Your task to perform on an android device: uninstall "LiveIn - Share Your Moment" Image 0: 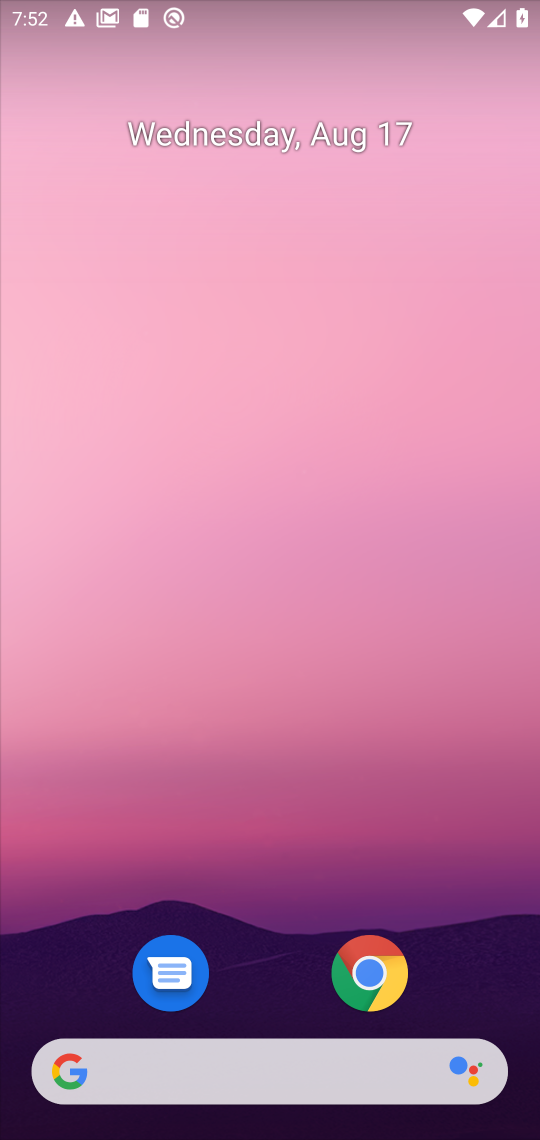
Step 0: drag from (295, 782) to (364, 198)
Your task to perform on an android device: uninstall "LiveIn - Share Your Moment" Image 1: 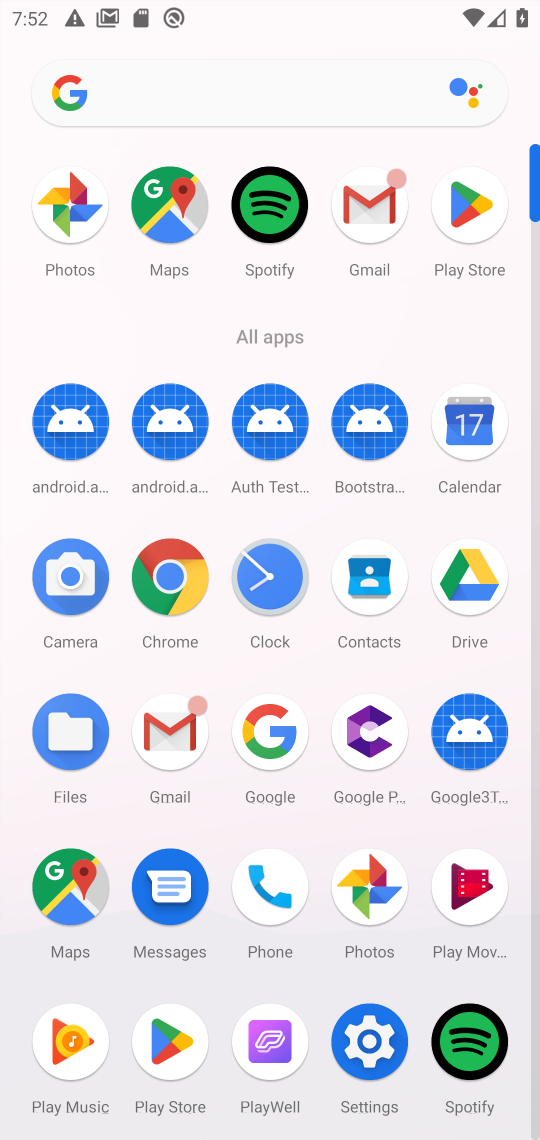
Step 1: click (183, 1052)
Your task to perform on an android device: uninstall "LiveIn - Share Your Moment" Image 2: 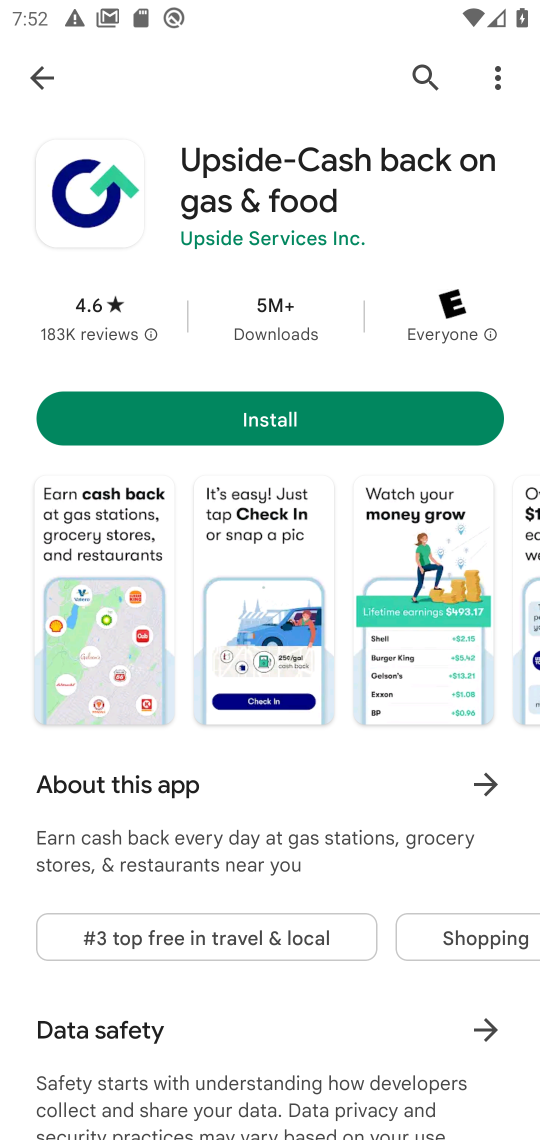
Step 2: click (50, 75)
Your task to perform on an android device: uninstall "LiveIn - Share Your Moment" Image 3: 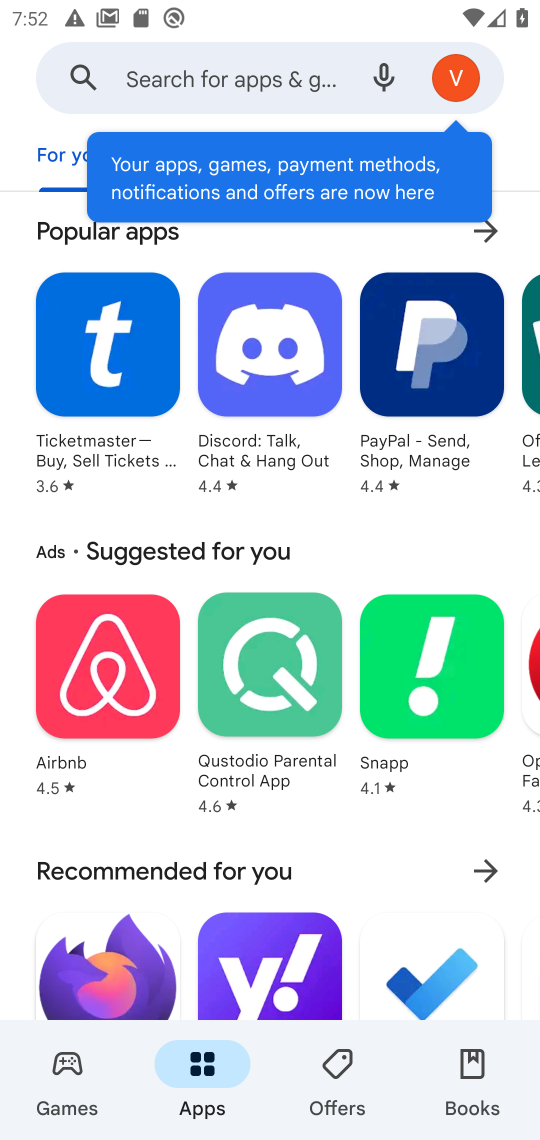
Step 3: click (145, 79)
Your task to perform on an android device: uninstall "LiveIn - Share Your Moment" Image 4: 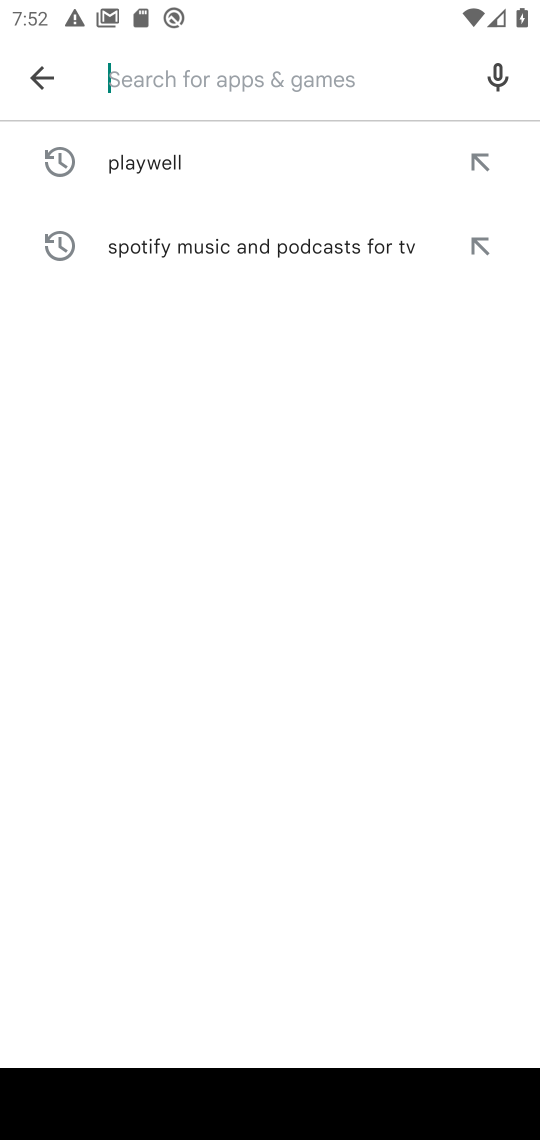
Step 4: type "LiveIn - Share Your Moment"
Your task to perform on an android device: uninstall "LiveIn - Share Your Moment" Image 5: 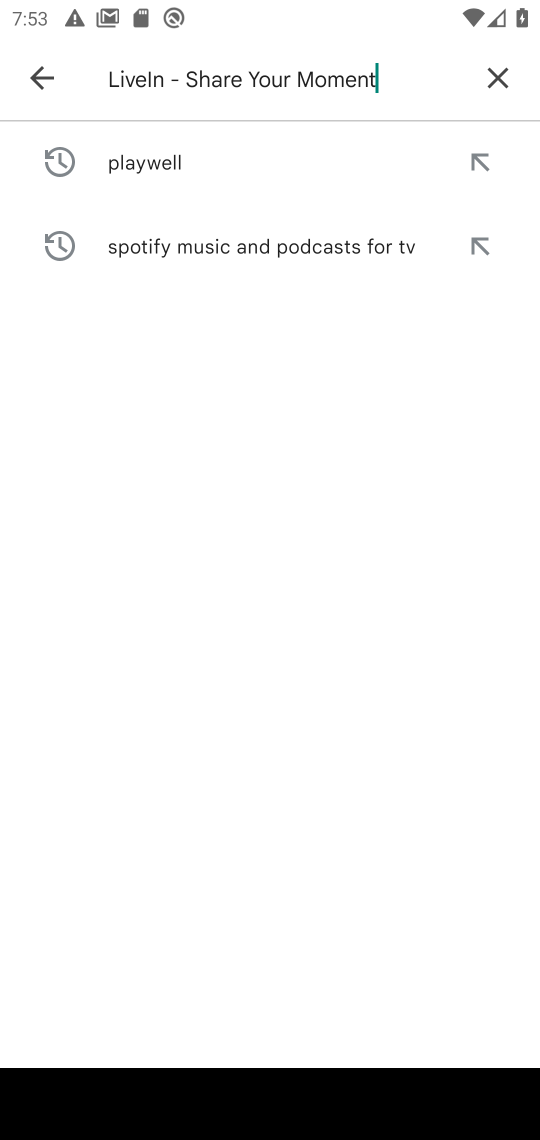
Step 5: type ""
Your task to perform on an android device: uninstall "LiveIn - Share Your Moment" Image 6: 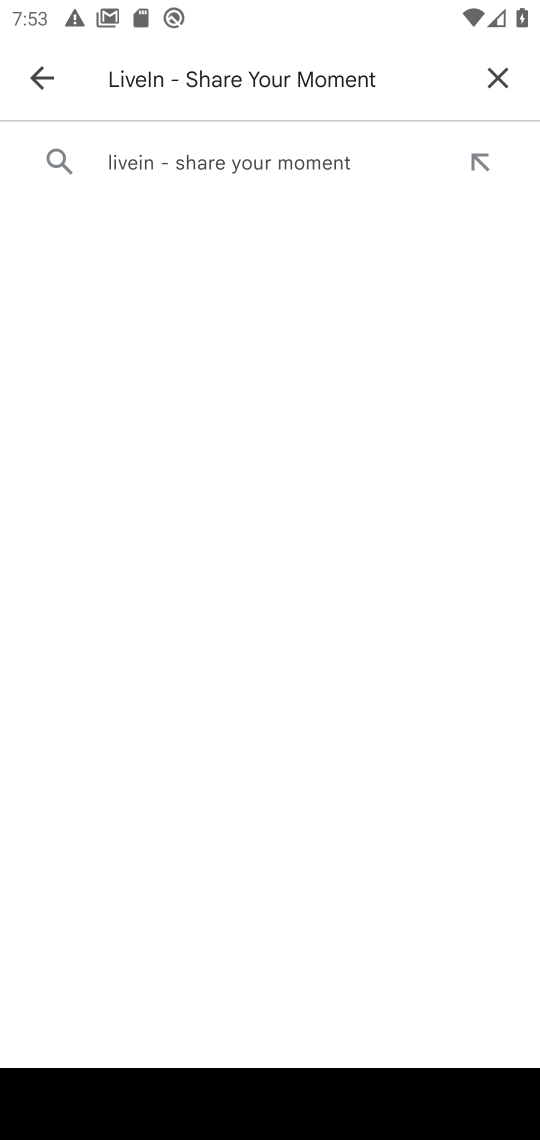
Step 6: click (223, 172)
Your task to perform on an android device: uninstall "LiveIn - Share Your Moment" Image 7: 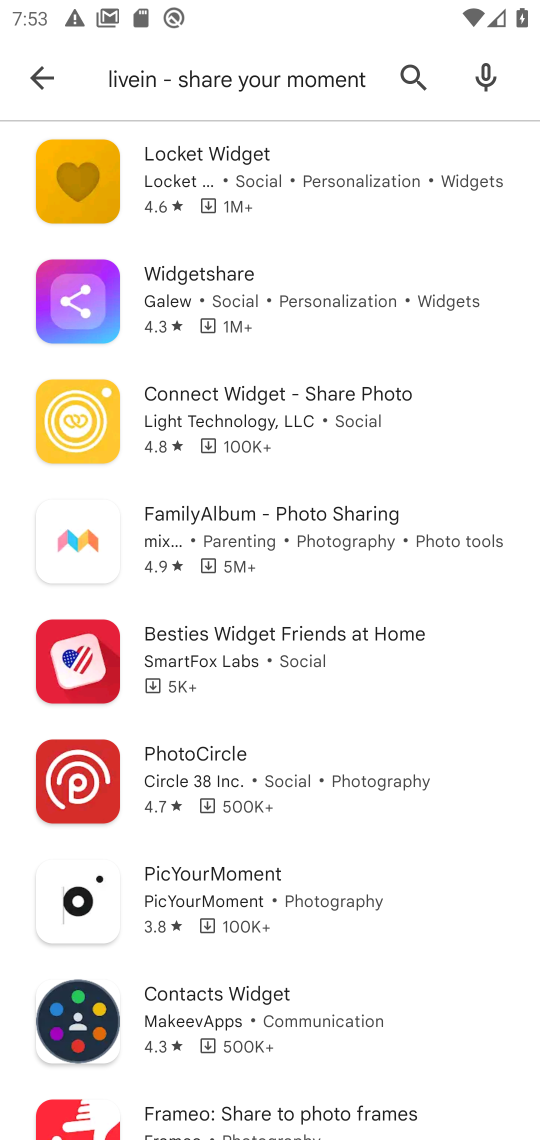
Step 7: task complete